Your task to perform on an android device: turn off javascript in the chrome app Image 0: 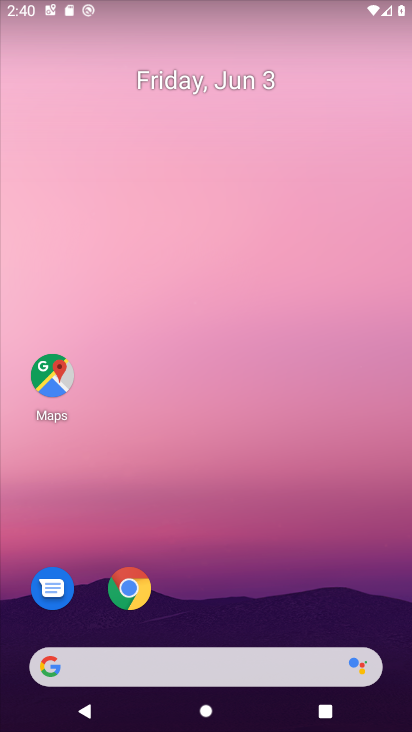
Step 0: drag from (210, 601) to (384, 14)
Your task to perform on an android device: turn off javascript in the chrome app Image 1: 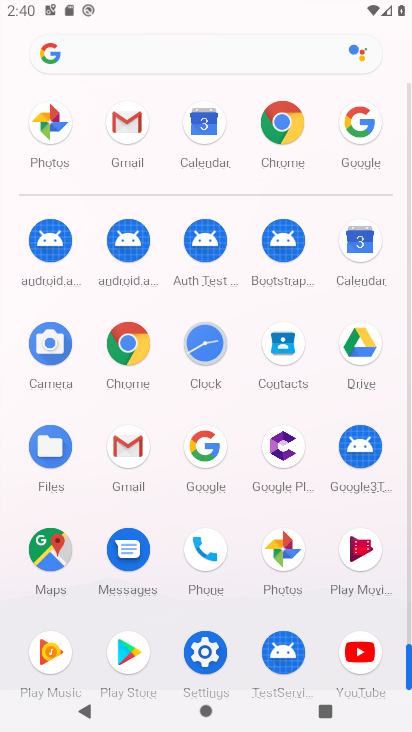
Step 1: click (288, 133)
Your task to perform on an android device: turn off javascript in the chrome app Image 2: 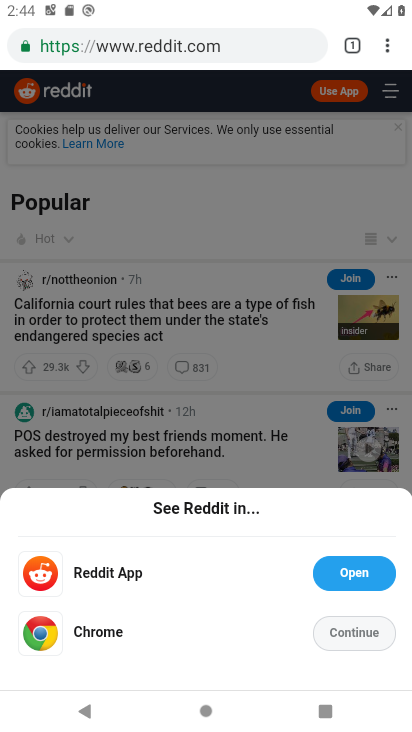
Step 2: press home button
Your task to perform on an android device: turn off javascript in the chrome app Image 3: 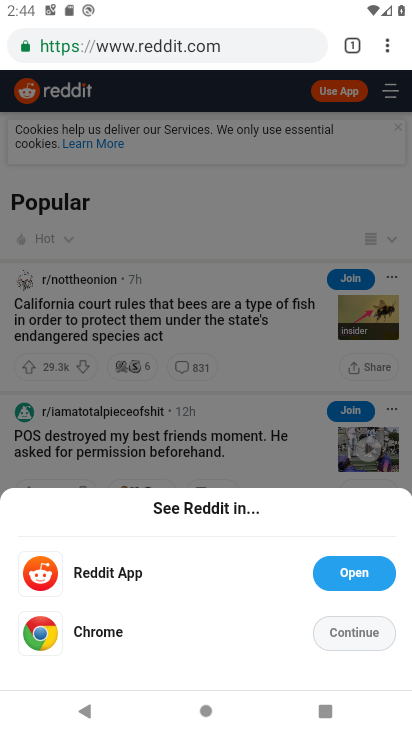
Step 3: press home button
Your task to perform on an android device: turn off javascript in the chrome app Image 4: 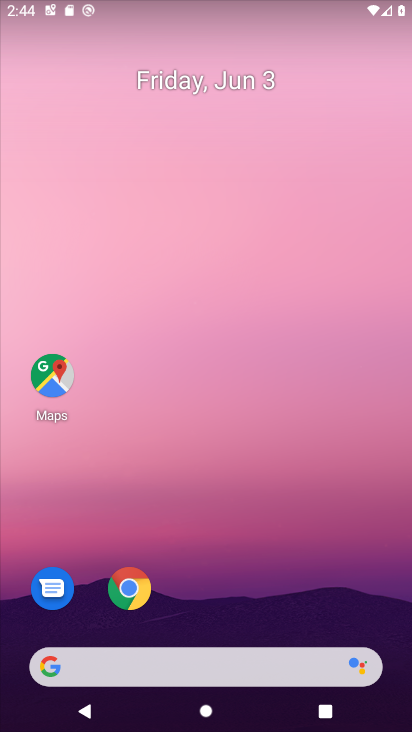
Step 4: click (143, 588)
Your task to perform on an android device: turn off javascript in the chrome app Image 5: 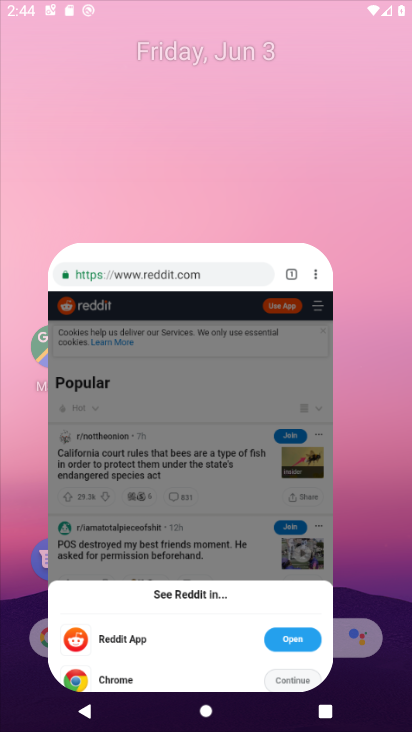
Step 5: click (141, 593)
Your task to perform on an android device: turn off javascript in the chrome app Image 6: 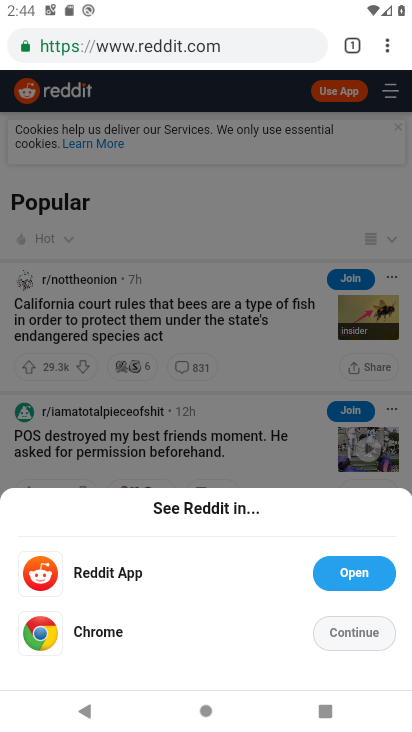
Step 6: click (390, 39)
Your task to perform on an android device: turn off javascript in the chrome app Image 7: 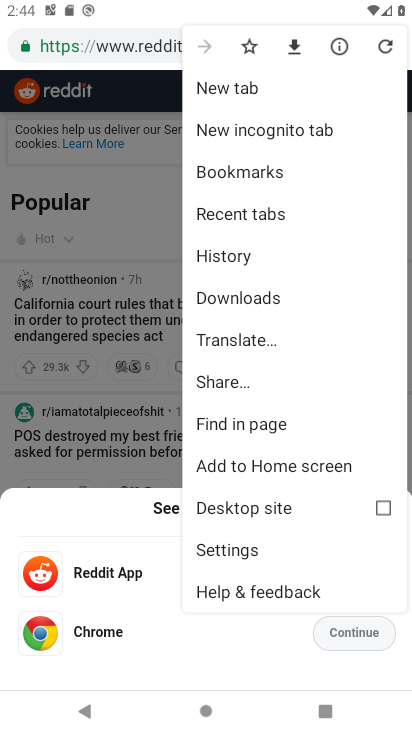
Step 7: click (221, 551)
Your task to perform on an android device: turn off javascript in the chrome app Image 8: 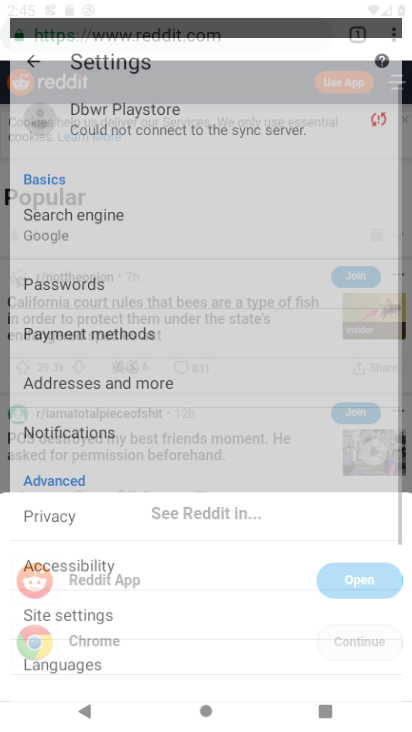
Step 8: drag from (314, 405) to (315, 144)
Your task to perform on an android device: turn off javascript in the chrome app Image 9: 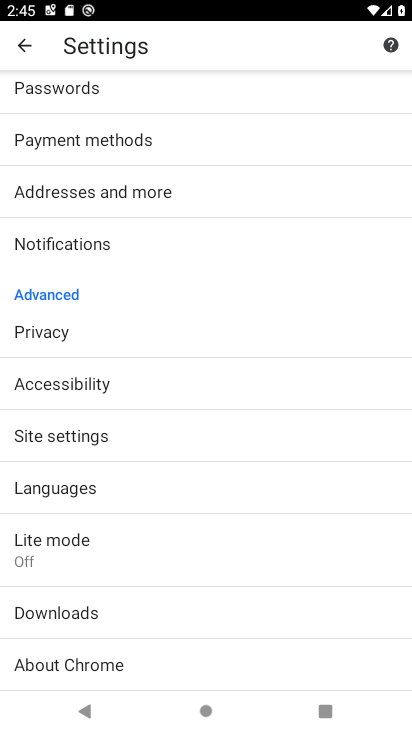
Step 9: drag from (203, 509) to (240, 276)
Your task to perform on an android device: turn off javascript in the chrome app Image 10: 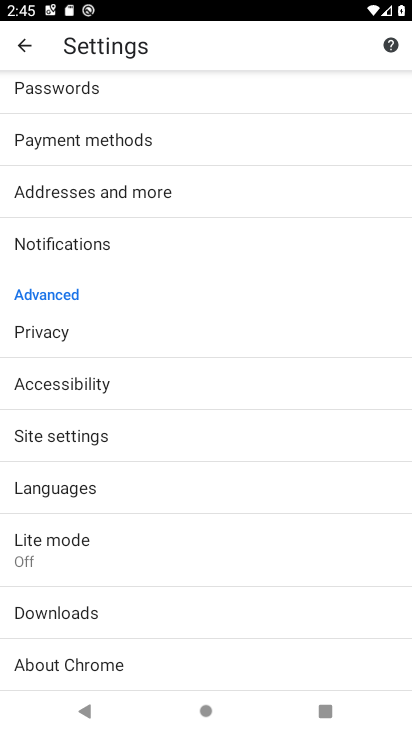
Step 10: click (88, 436)
Your task to perform on an android device: turn off javascript in the chrome app Image 11: 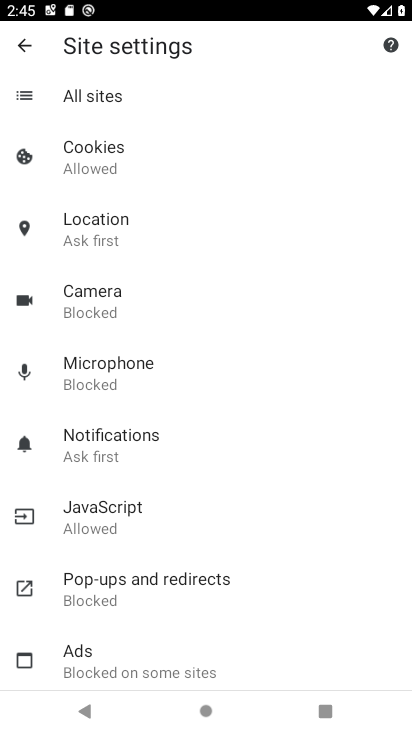
Step 11: click (100, 518)
Your task to perform on an android device: turn off javascript in the chrome app Image 12: 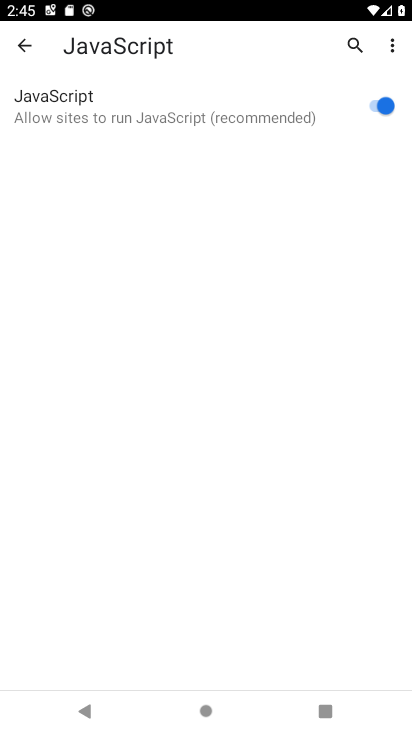
Step 12: click (374, 117)
Your task to perform on an android device: turn off javascript in the chrome app Image 13: 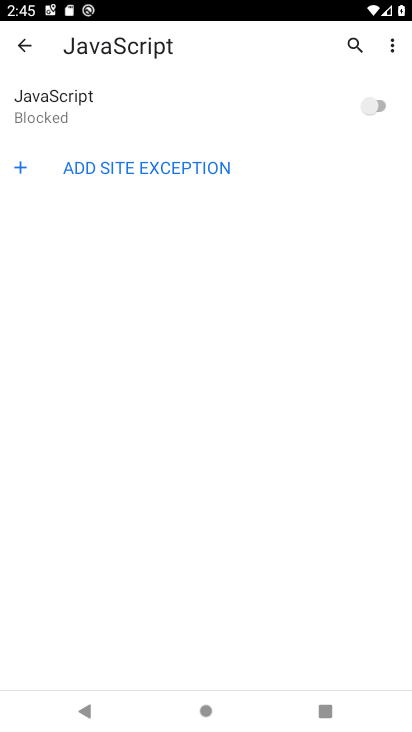
Step 13: task complete